Your task to perform on an android device: Search for bose soundlink on amazon, select the first entry, and add it to the cart. Image 0: 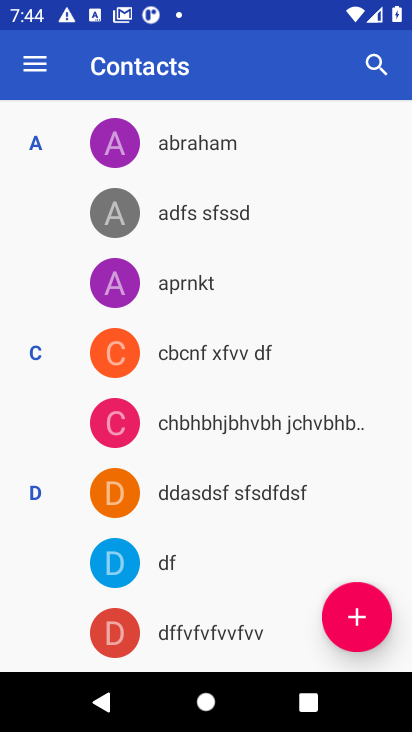
Step 0: press home button
Your task to perform on an android device: Search for bose soundlink on amazon, select the first entry, and add it to the cart. Image 1: 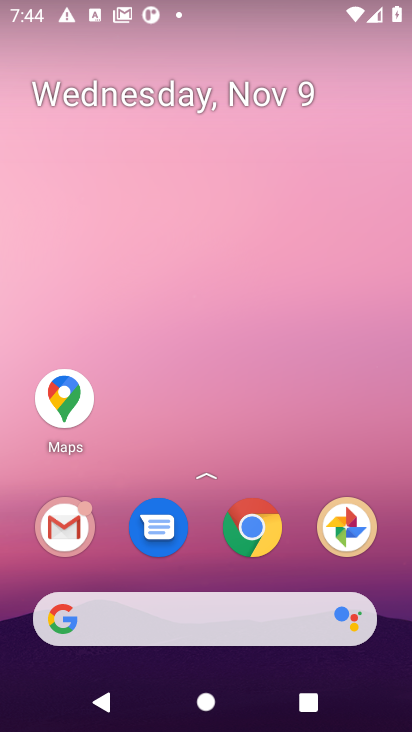
Step 1: click (253, 535)
Your task to perform on an android device: Search for bose soundlink on amazon, select the first entry, and add it to the cart. Image 2: 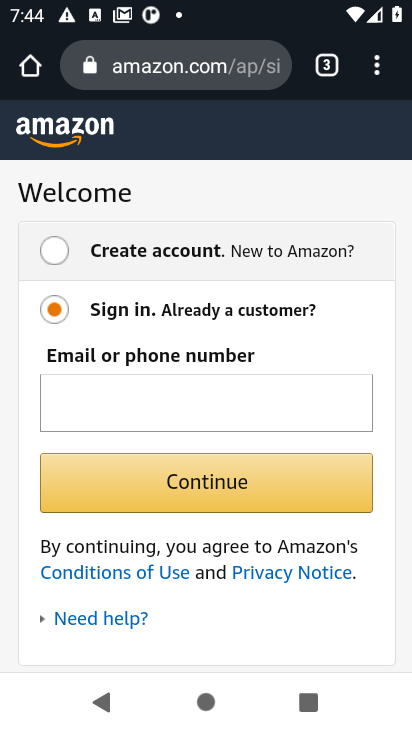
Step 2: drag from (214, 205) to (224, 357)
Your task to perform on an android device: Search for bose soundlink on amazon, select the first entry, and add it to the cart. Image 3: 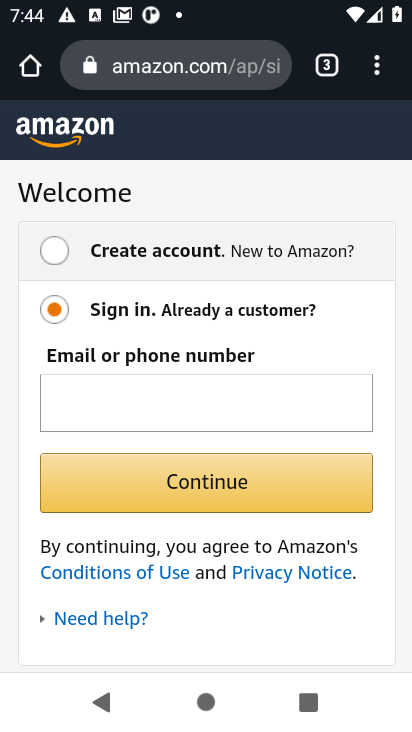
Step 3: click (197, 478)
Your task to perform on an android device: Search for bose soundlink on amazon, select the first entry, and add it to the cart. Image 4: 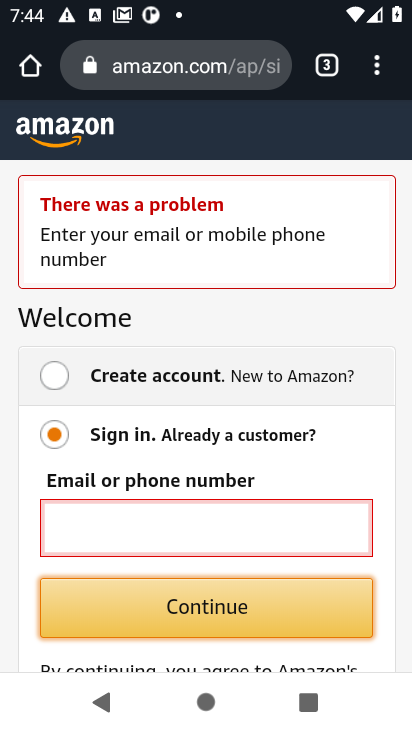
Step 4: click (122, 74)
Your task to perform on an android device: Search for bose soundlink on amazon, select the first entry, and add it to the cart. Image 5: 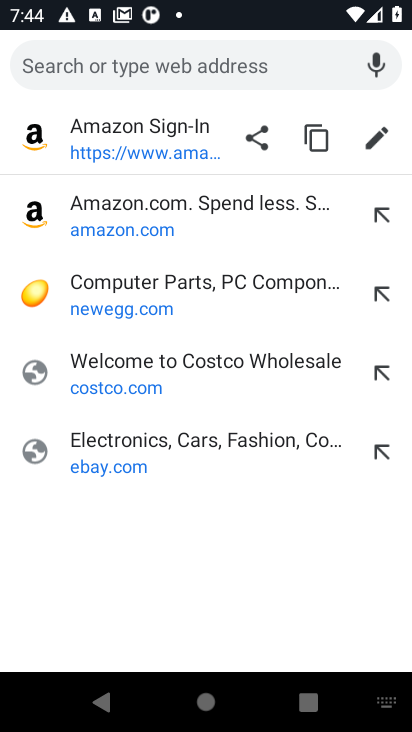
Step 5: click (100, 212)
Your task to perform on an android device: Search for bose soundlink on amazon, select the first entry, and add it to the cart. Image 6: 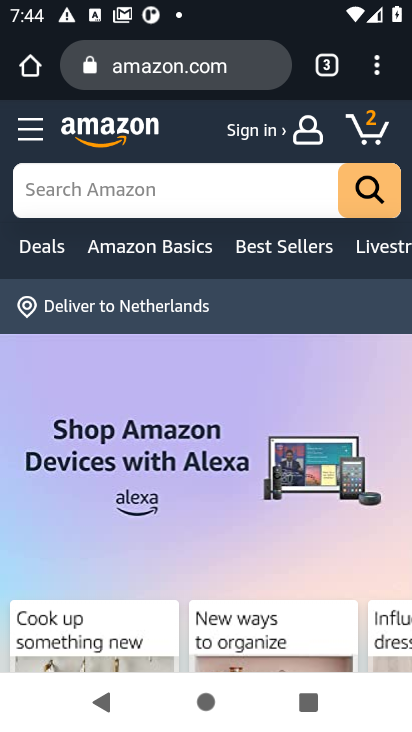
Step 6: click (104, 200)
Your task to perform on an android device: Search for bose soundlink on amazon, select the first entry, and add it to the cart. Image 7: 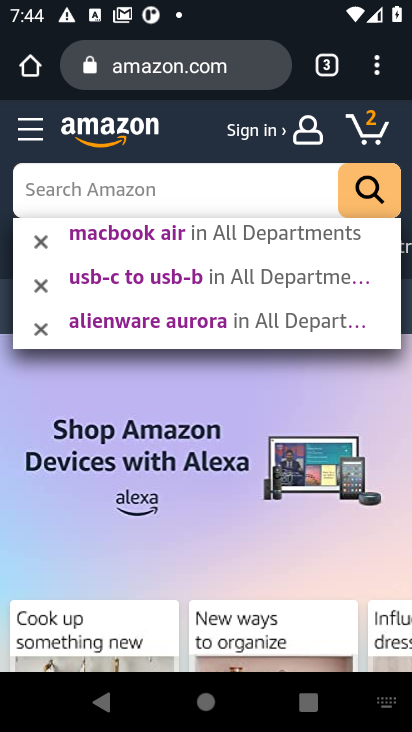
Step 7: type "bose soundlink"
Your task to perform on an android device: Search for bose soundlink on amazon, select the first entry, and add it to the cart. Image 8: 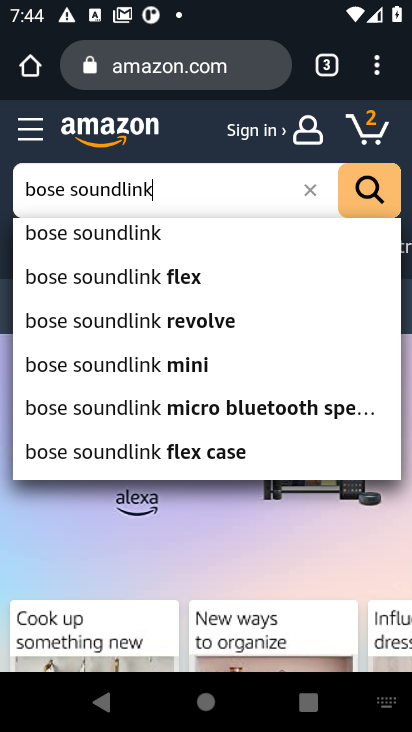
Step 8: click (96, 228)
Your task to perform on an android device: Search for bose soundlink on amazon, select the first entry, and add it to the cart. Image 9: 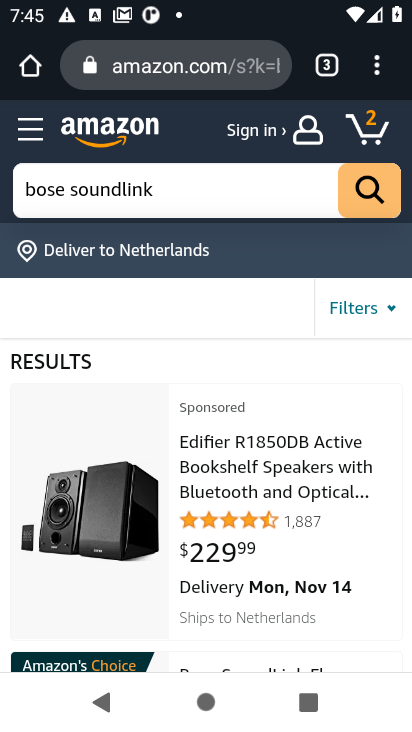
Step 9: task complete